Your task to perform on an android device: add a contact Image 0: 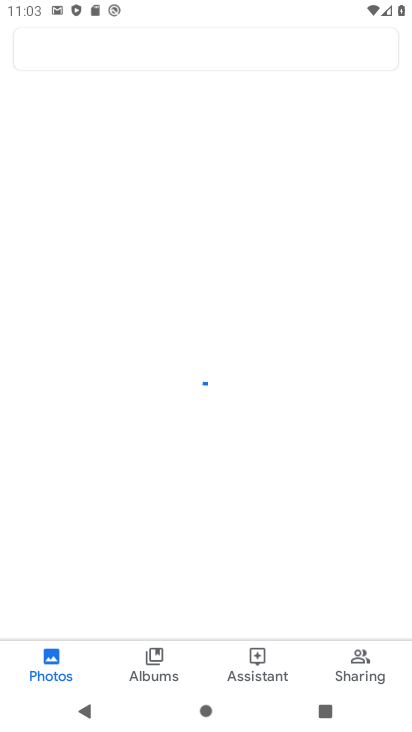
Step 0: press home button
Your task to perform on an android device: add a contact Image 1: 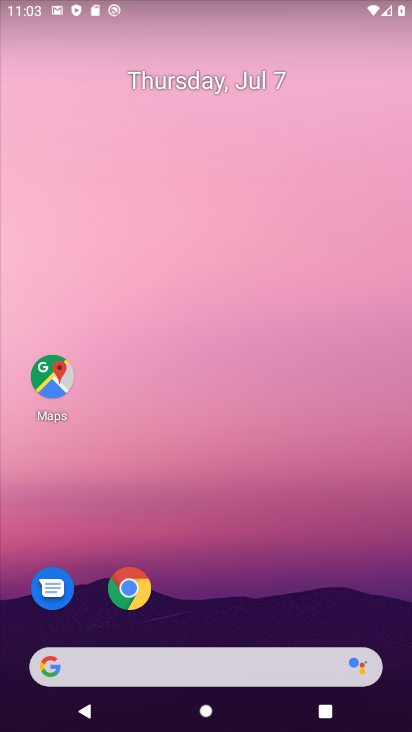
Step 1: drag from (231, 648) to (165, 116)
Your task to perform on an android device: add a contact Image 2: 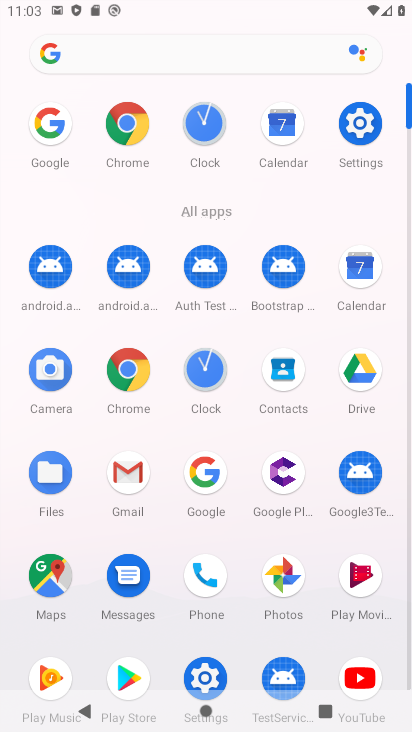
Step 2: click (207, 580)
Your task to perform on an android device: add a contact Image 3: 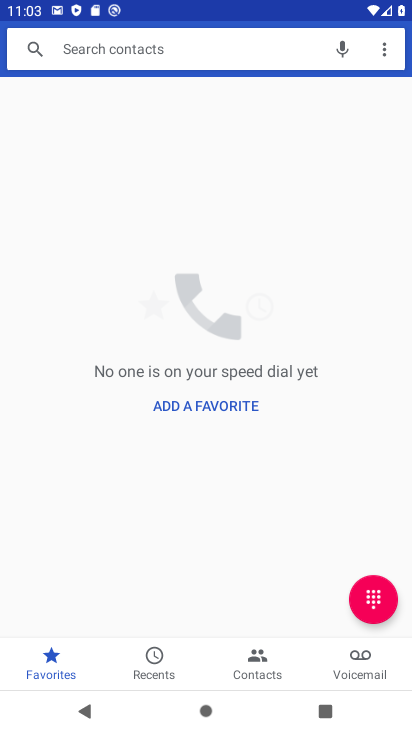
Step 3: click (260, 661)
Your task to perform on an android device: add a contact Image 4: 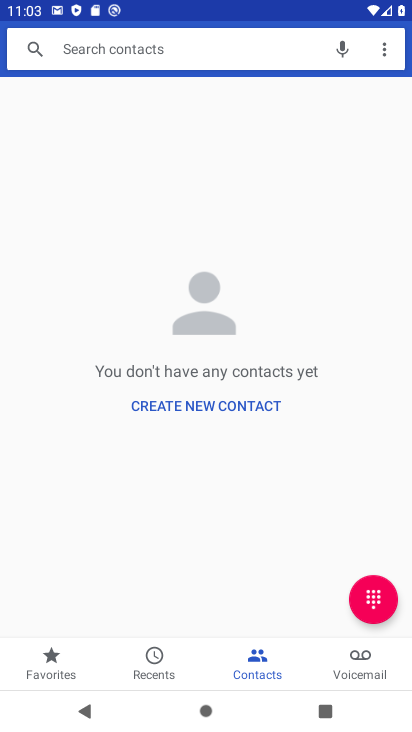
Step 4: click (175, 391)
Your task to perform on an android device: add a contact Image 5: 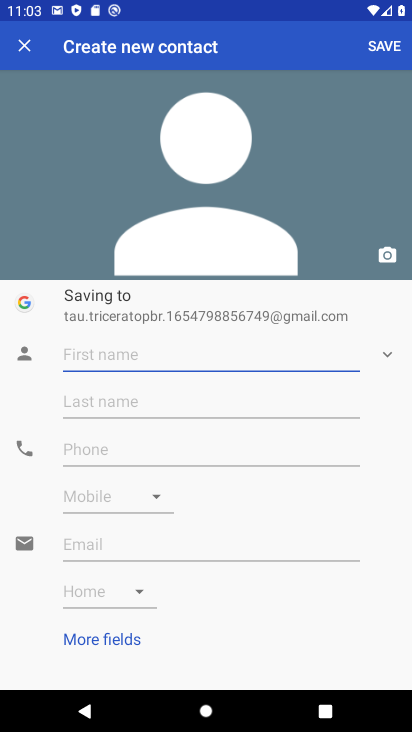
Step 5: type "vv"
Your task to perform on an android device: add a contact Image 6: 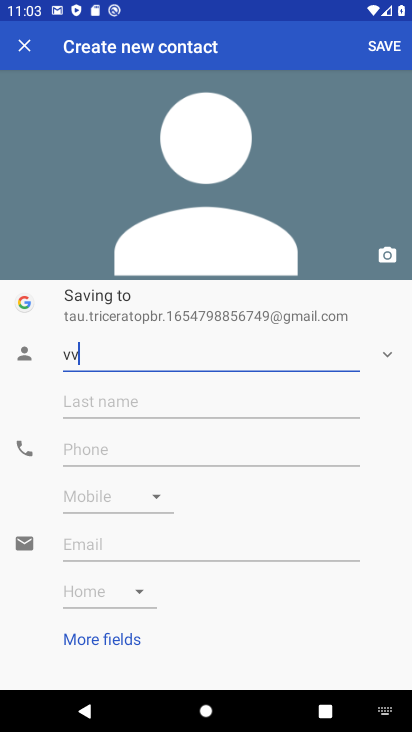
Step 6: type ""
Your task to perform on an android device: add a contact Image 7: 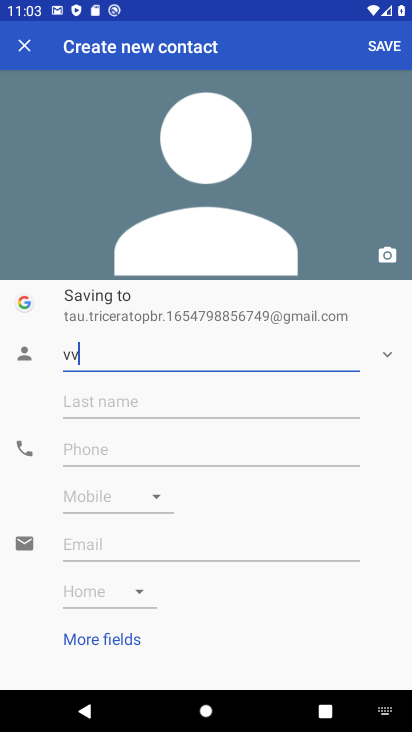
Step 7: click (68, 443)
Your task to perform on an android device: add a contact Image 8: 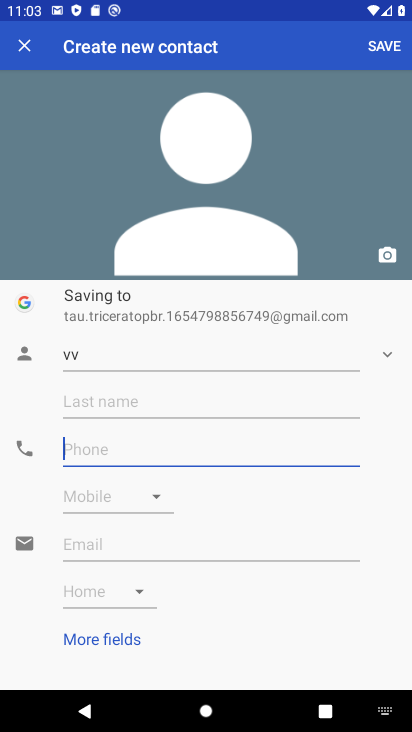
Step 8: type "54"
Your task to perform on an android device: add a contact Image 9: 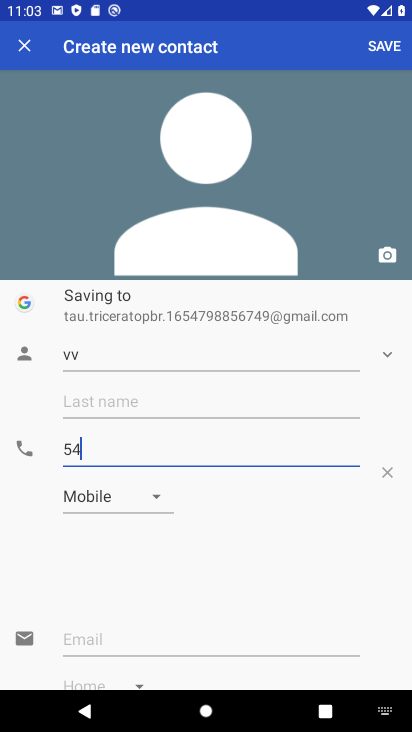
Step 9: type ""
Your task to perform on an android device: add a contact Image 10: 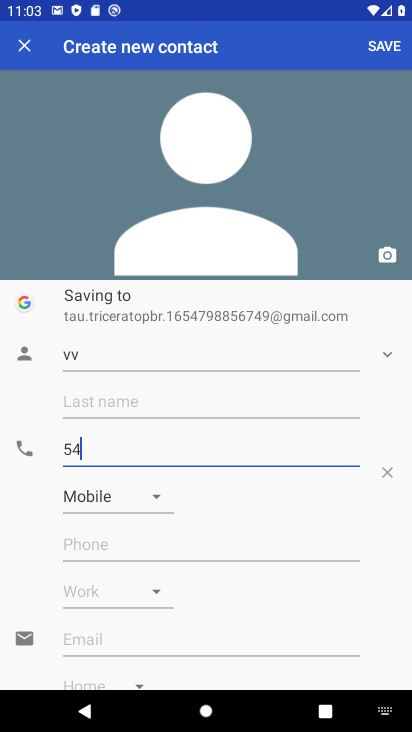
Step 10: click (372, 43)
Your task to perform on an android device: add a contact Image 11: 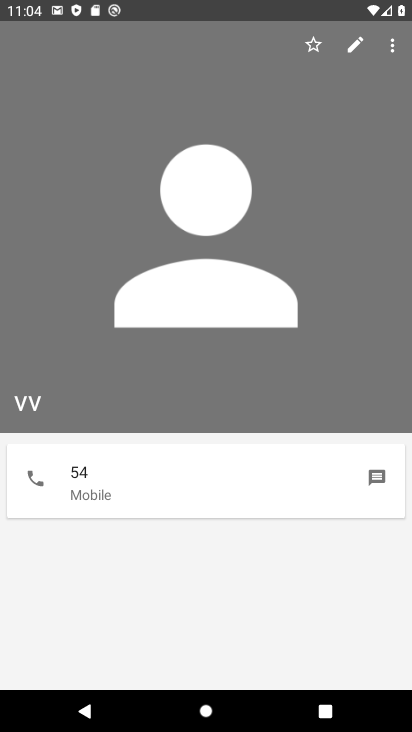
Step 11: task complete